Your task to perform on an android device: Go to Reddit.com Image 0: 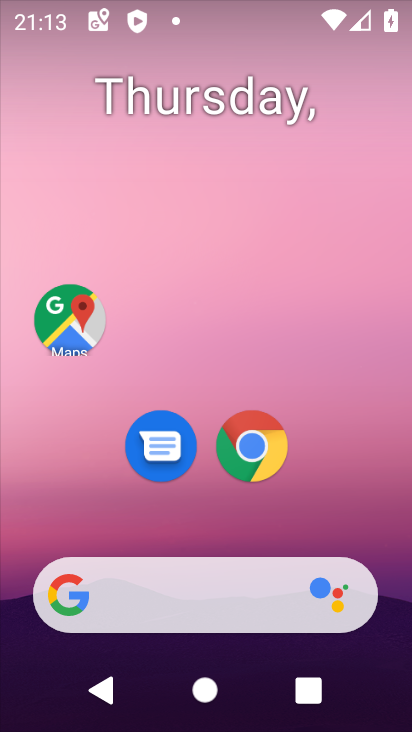
Step 0: click (257, 417)
Your task to perform on an android device: Go to Reddit.com Image 1: 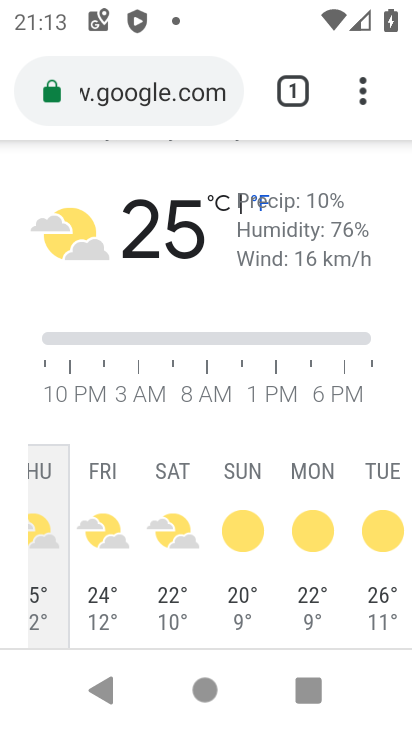
Step 1: drag from (374, 98) to (229, 158)
Your task to perform on an android device: Go to Reddit.com Image 2: 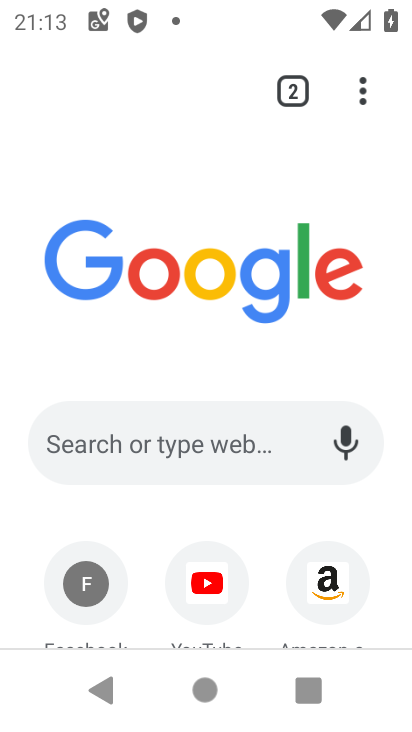
Step 2: drag from (266, 406) to (270, 99)
Your task to perform on an android device: Go to Reddit.com Image 3: 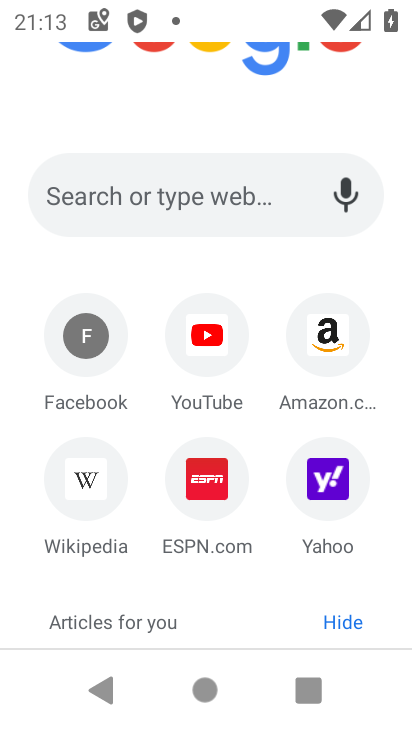
Step 3: click (194, 196)
Your task to perform on an android device: Go to Reddit.com Image 4: 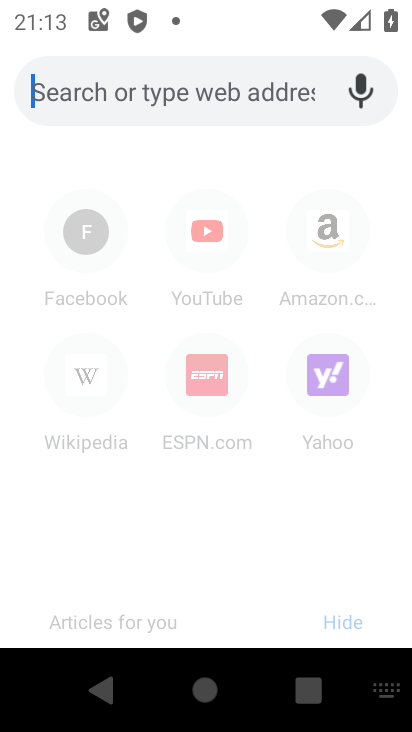
Step 4: type "Reddit.com"
Your task to perform on an android device: Go to Reddit.com Image 5: 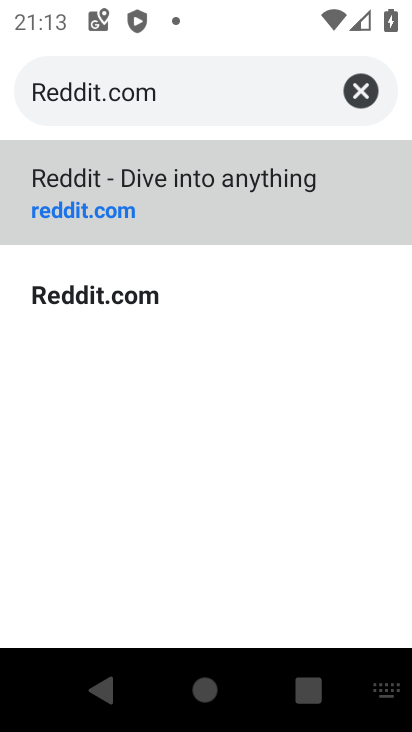
Step 5: click (199, 207)
Your task to perform on an android device: Go to Reddit.com Image 6: 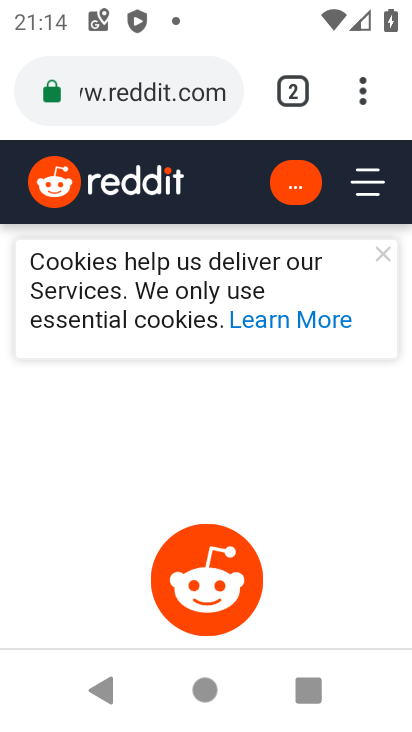
Step 6: task complete